Your task to perform on an android device: change text size in settings app Image 0: 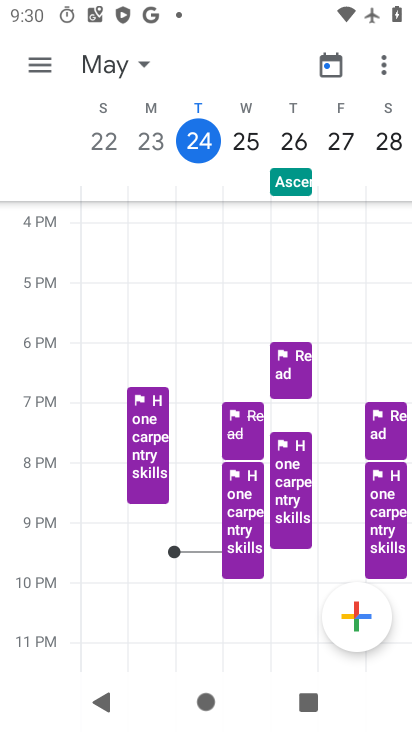
Step 0: press home button
Your task to perform on an android device: change text size in settings app Image 1: 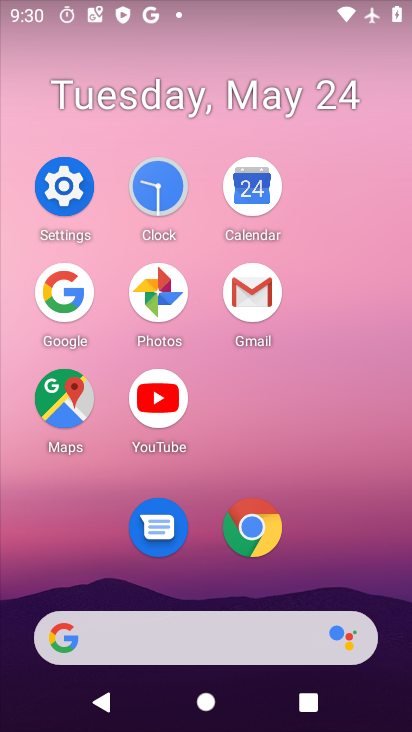
Step 1: click (75, 192)
Your task to perform on an android device: change text size in settings app Image 2: 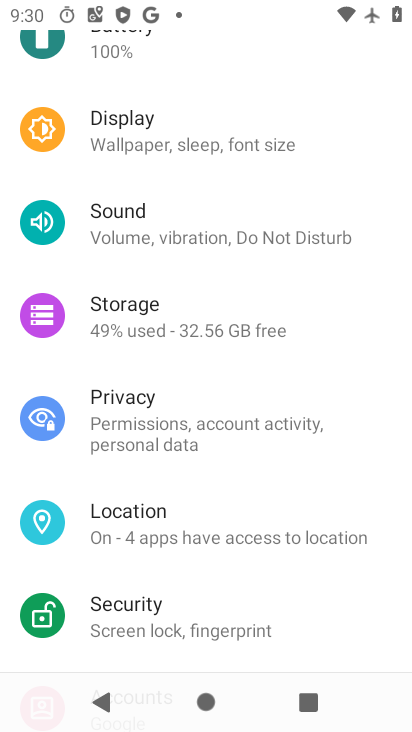
Step 2: click (178, 139)
Your task to perform on an android device: change text size in settings app Image 3: 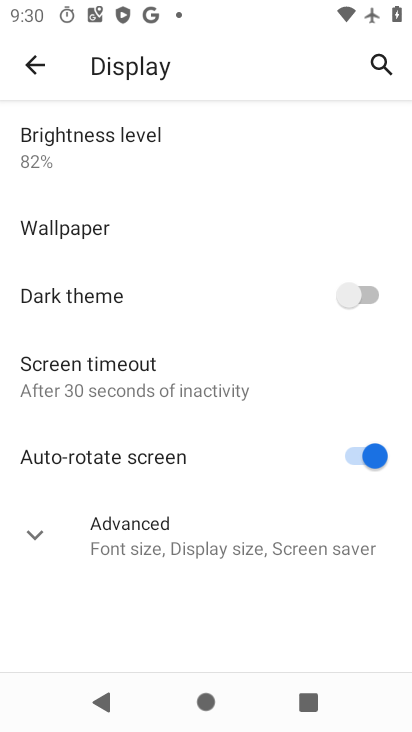
Step 3: click (193, 530)
Your task to perform on an android device: change text size in settings app Image 4: 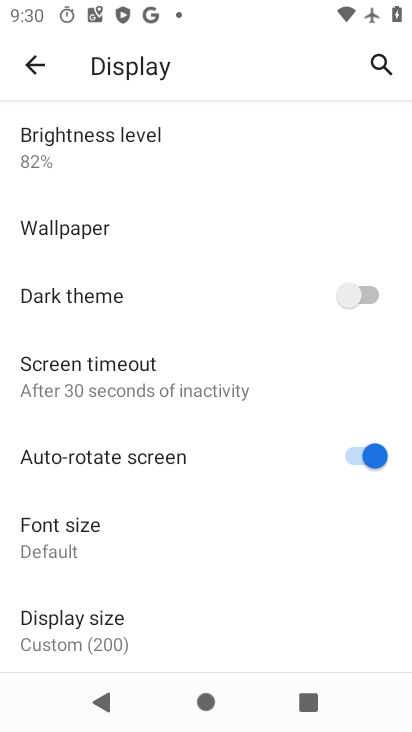
Step 4: click (85, 530)
Your task to perform on an android device: change text size in settings app Image 5: 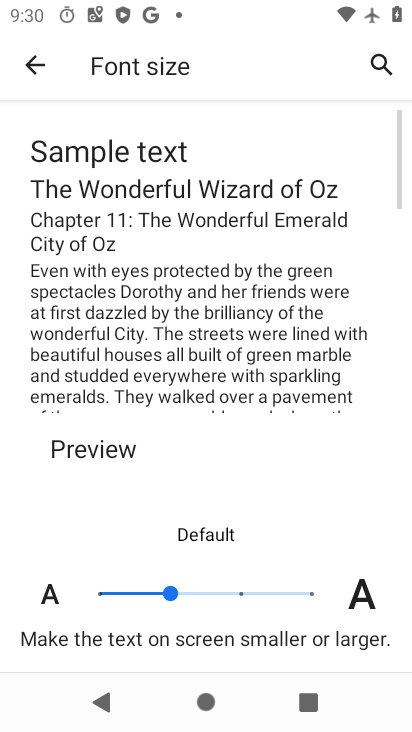
Step 5: click (232, 594)
Your task to perform on an android device: change text size in settings app Image 6: 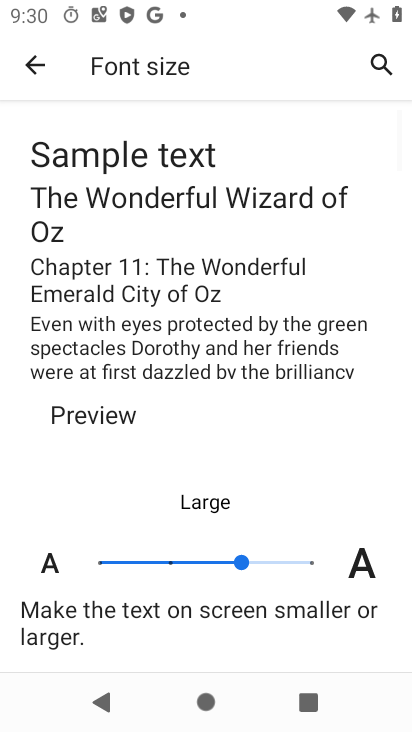
Step 6: task complete